Your task to perform on an android device: open chrome and create a bookmark for the current page Image 0: 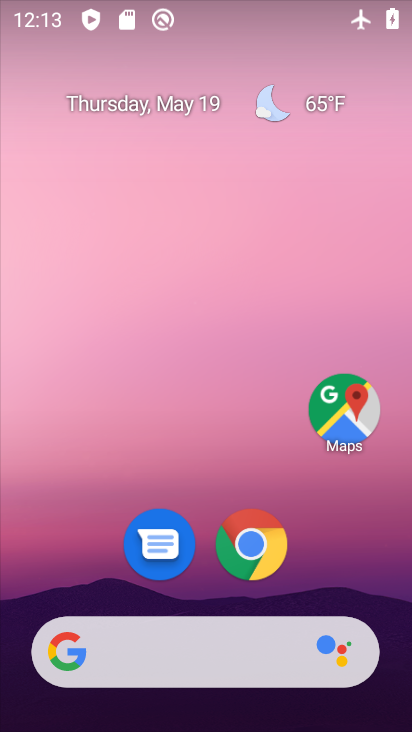
Step 0: drag from (342, 563) to (331, 162)
Your task to perform on an android device: open chrome and create a bookmark for the current page Image 1: 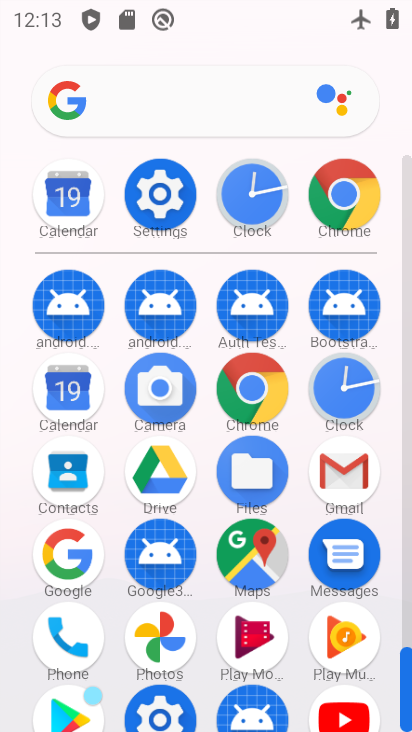
Step 1: click (261, 380)
Your task to perform on an android device: open chrome and create a bookmark for the current page Image 2: 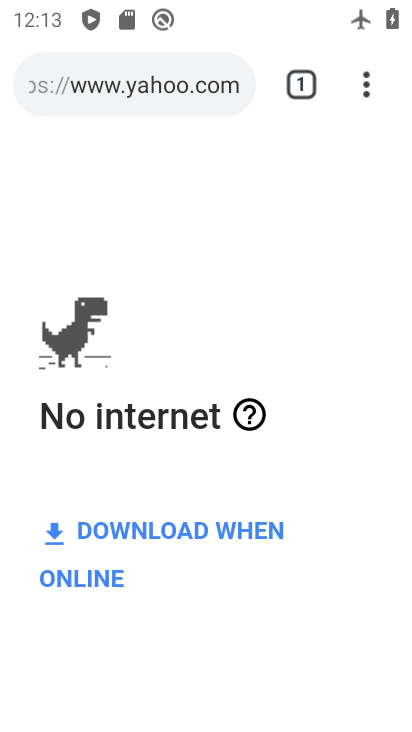
Step 2: click (369, 89)
Your task to perform on an android device: open chrome and create a bookmark for the current page Image 3: 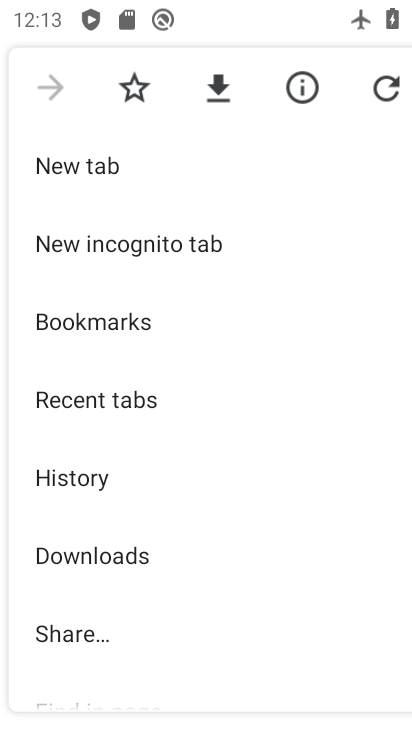
Step 3: click (141, 96)
Your task to perform on an android device: open chrome and create a bookmark for the current page Image 4: 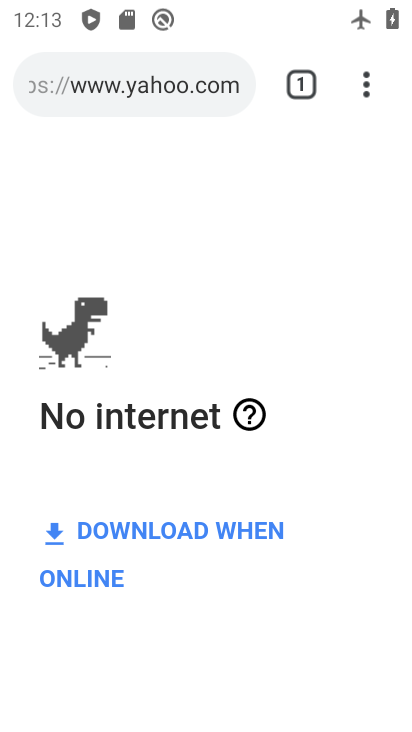
Step 4: task complete